Your task to perform on an android device: Is it going to rain tomorrow? Image 0: 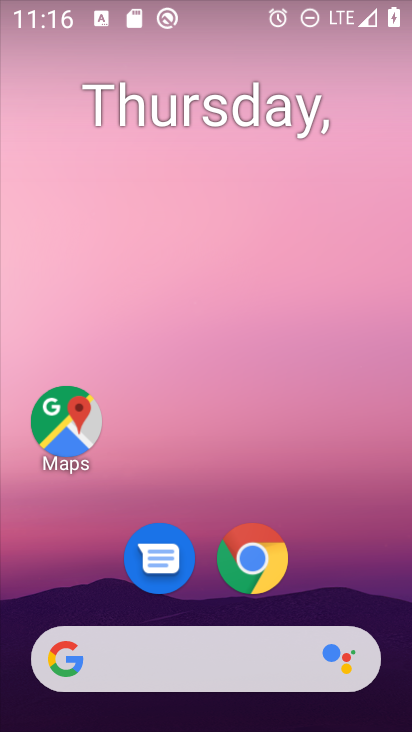
Step 0: drag from (12, 182) to (411, 307)
Your task to perform on an android device: Is it going to rain tomorrow? Image 1: 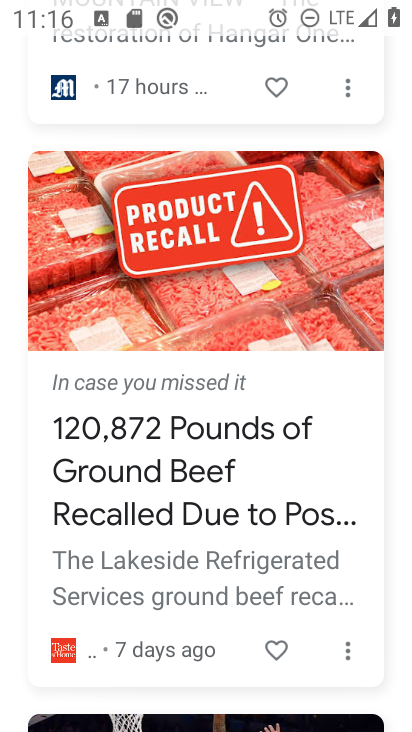
Step 1: drag from (275, 267) to (260, 676)
Your task to perform on an android device: Is it going to rain tomorrow? Image 2: 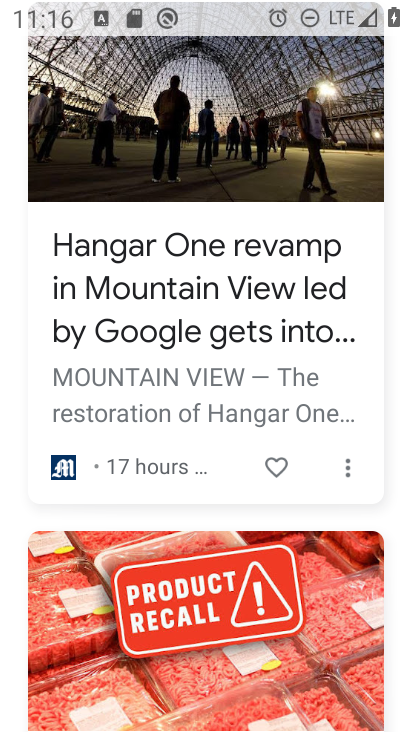
Step 2: drag from (293, 197) to (307, 590)
Your task to perform on an android device: Is it going to rain tomorrow? Image 3: 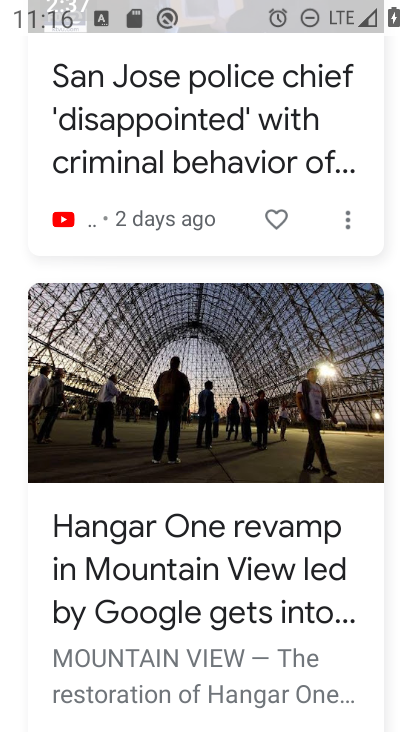
Step 3: drag from (305, 110) to (306, 616)
Your task to perform on an android device: Is it going to rain tomorrow? Image 4: 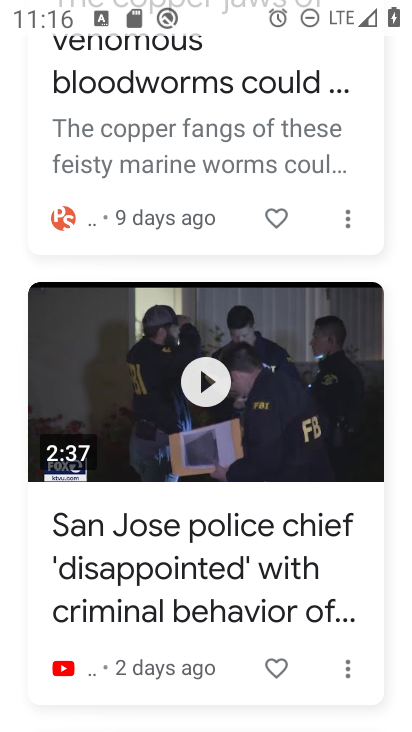
Step 4: drag from (317, 118) to (318, 604)
Your task to perform on an android device: Is it going to rain tomorrow? Image 5: 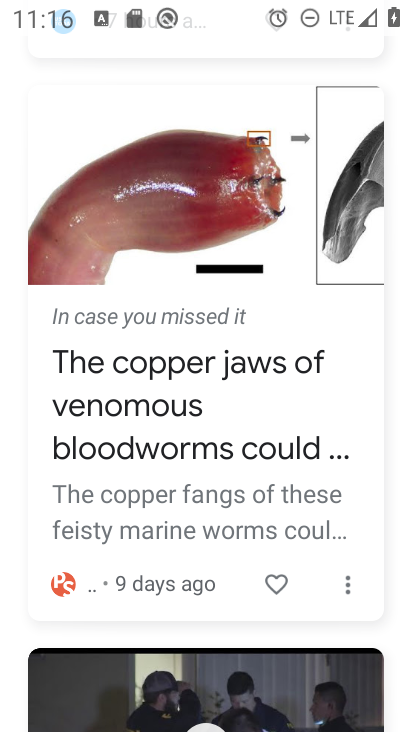
Step 5: drag from (317, 109) to (296, 596)
Your task to perform on an android device: Is it going to rain tomorrow? Image 6: 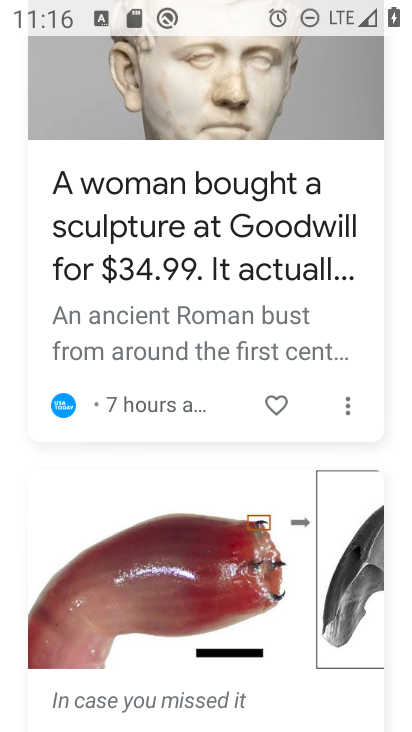
Step 6: drag from (303, 178) to (282, 581)
Your task to perform on an android device: Is it going to rain tomorrow? Image 7: 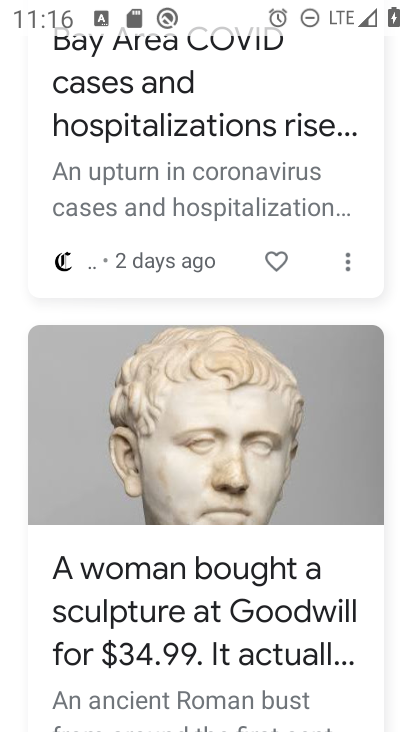
Step 7: drag from (273, 144) to (264, 563)
Your task to perform on an android device: Is it going to rain tomorrow? Image 8: 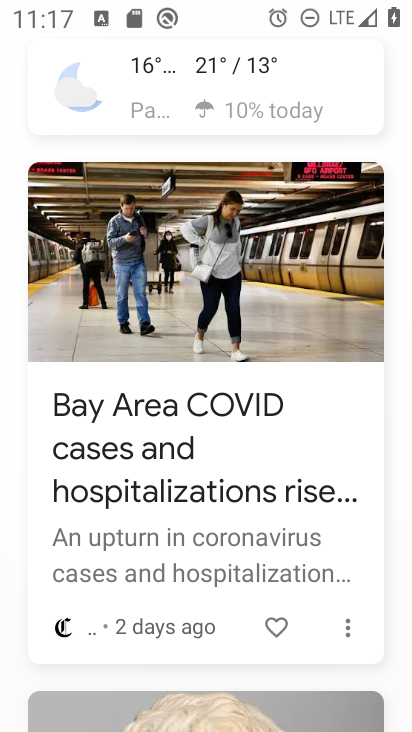
Step 8: click (215, 83)
Your task to perform on an android device: Is it going to rain tomorrow? Image 9: 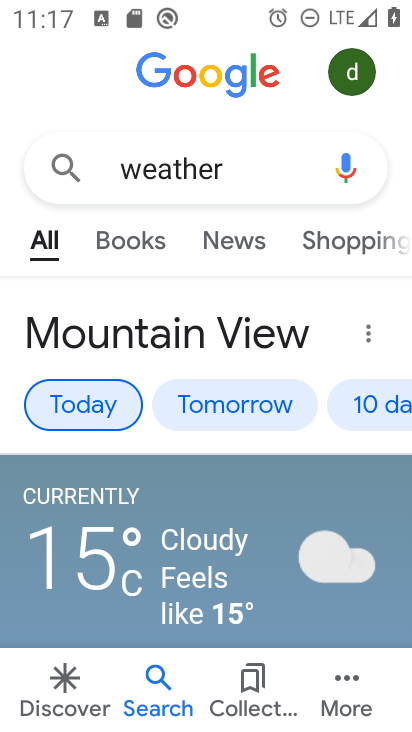
Step 9: click (213, 409)
Your task to perform on an android device: Is it going to rain tomorrow? Image 10: 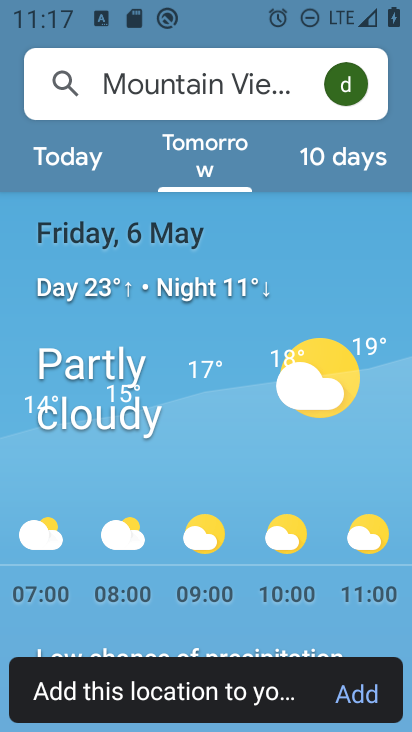
Step 10: task complete